Your task to perform on an android device: Open Google Maps and go to "Timeline" Image 0: 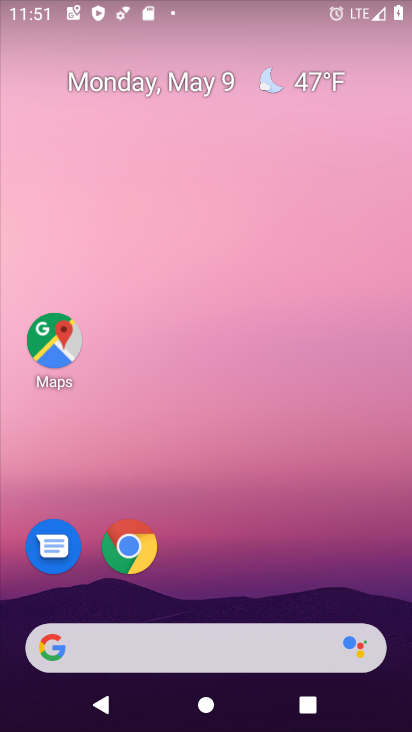
Step 0: click (56, 339)
Your task to perform on an android device: Open Google Maps and go to "Timeline" Image 1: 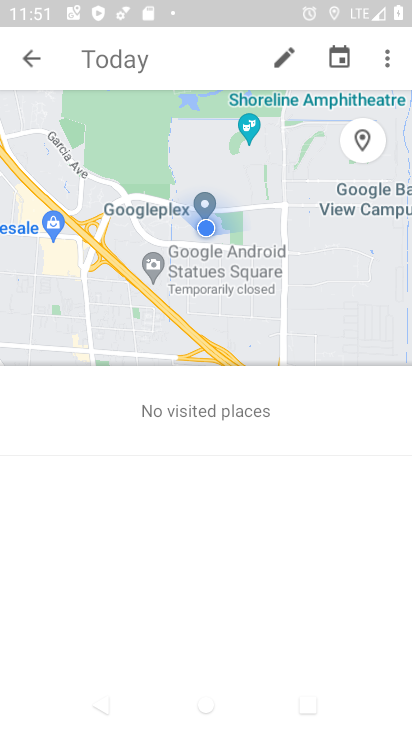
Step 1: click (24, 61)
Your task to perform on an android device: Open Google Maps and go to "Timeline" Image 2: 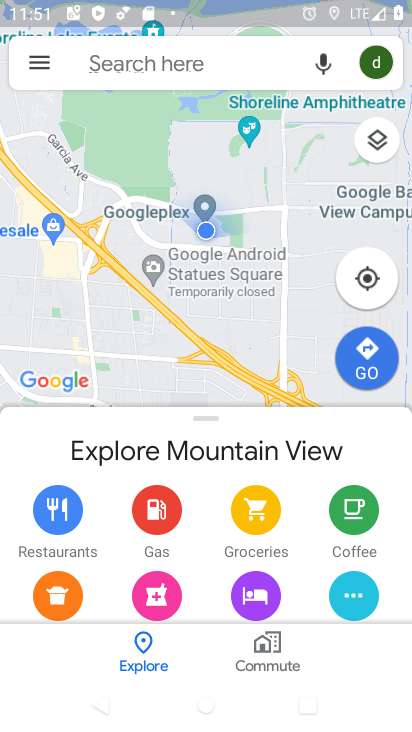
Step 2: click (33, 63)
Your task to perform on an android device: Open Google Maps and go to "Timeline" Image 3: 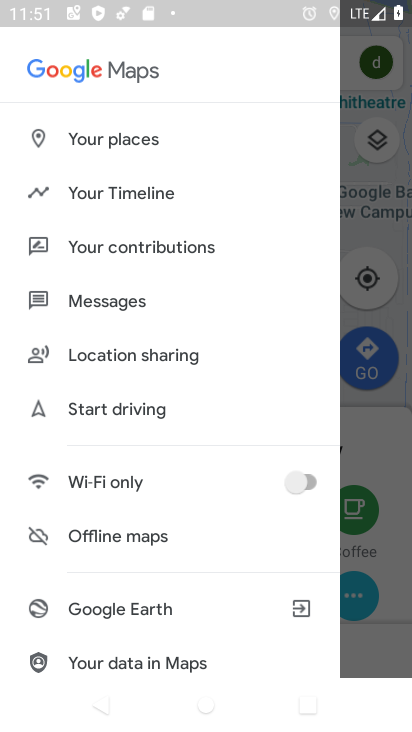
Step 3: click (79, 193)
Your task to perform on an android device: Open Google Maps and go to "Timeline" Image 4: 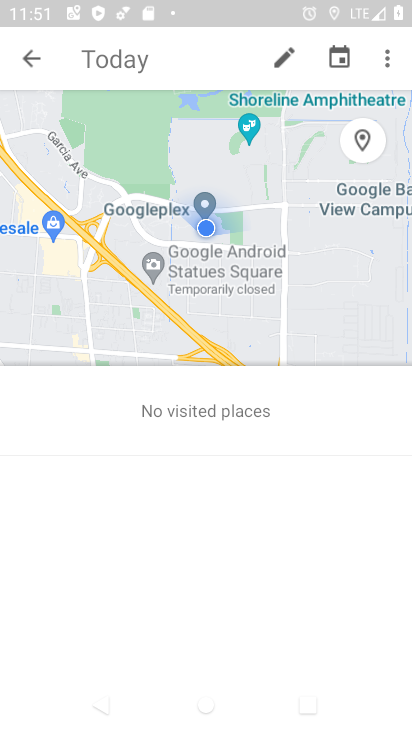
Step 4: task complete